Your task to perform on an android device: install app "Lyft - Rideshare, Bikes, Scooters & Transit" Image 0: 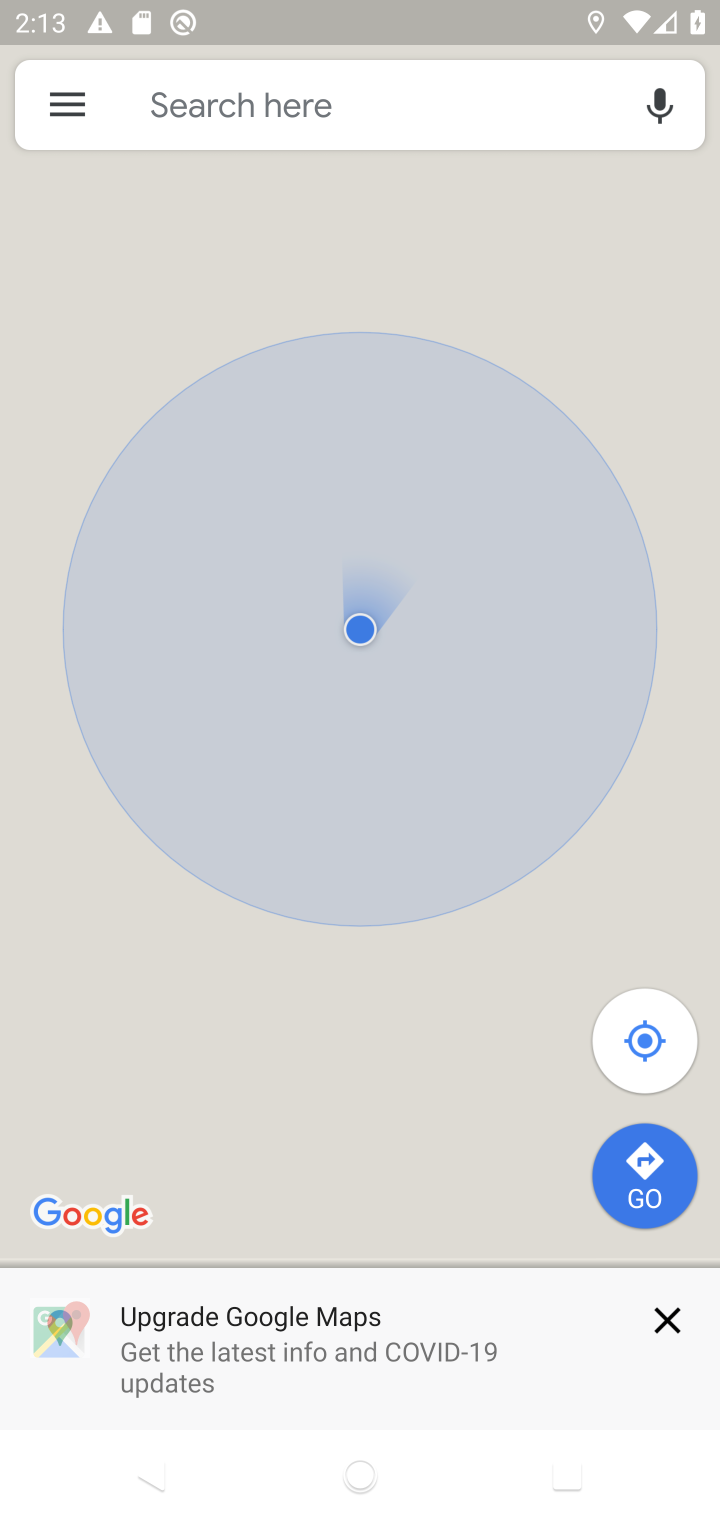
Step 0: press home button
Your task to perform on an android device: install app "Lyft - Rideshare, Bikes, Scooters & Transit" Image 1: 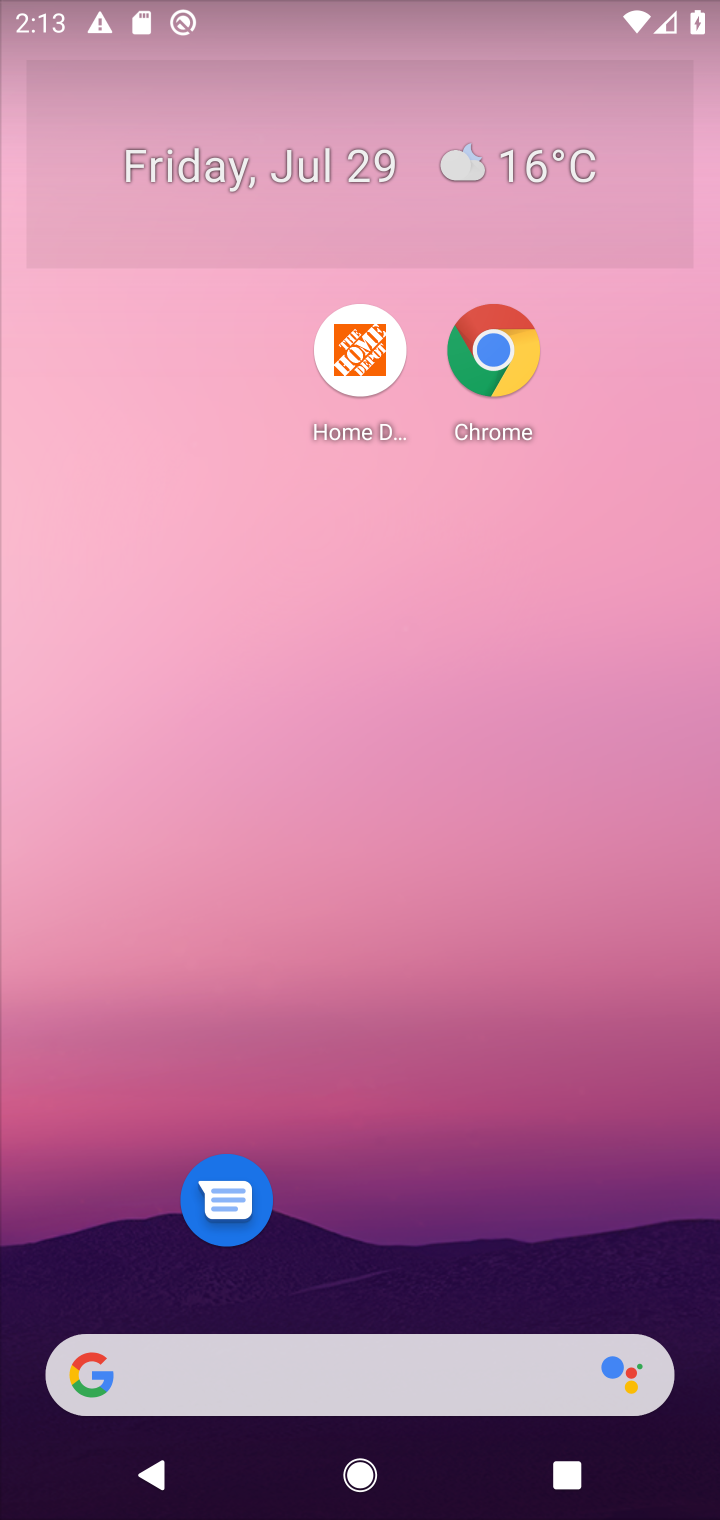
Step 1: drag from (455, 392) to (448, 206)
Your task to perform on an android device: install app "Lyft - Rideshare, Bikes, Scooters & Transit" Image 2: 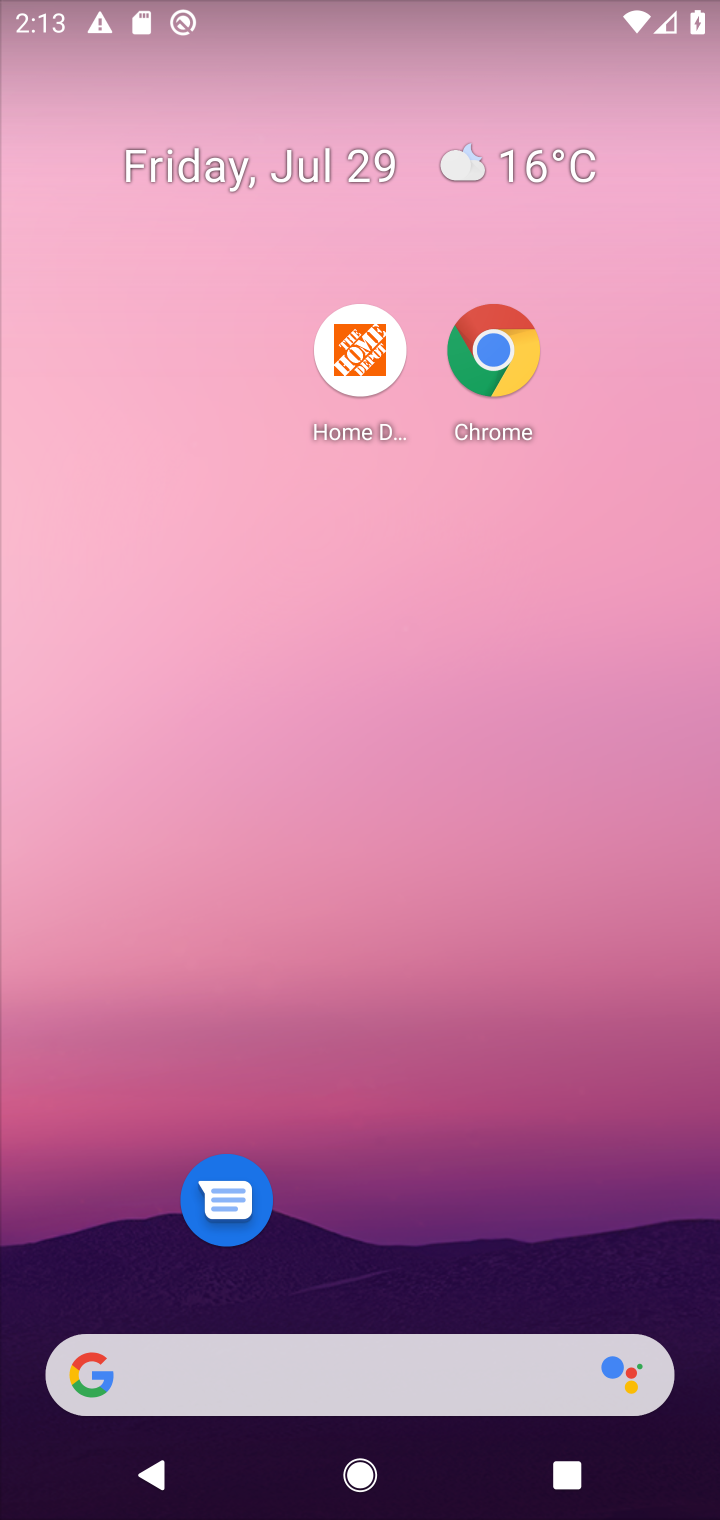
Step 2: drag from (530, 973) to (464, 39)
Your task to perform on an android device: install app "Lyft - Rideshare, Bikes, Scooters & Transit" Image 3: 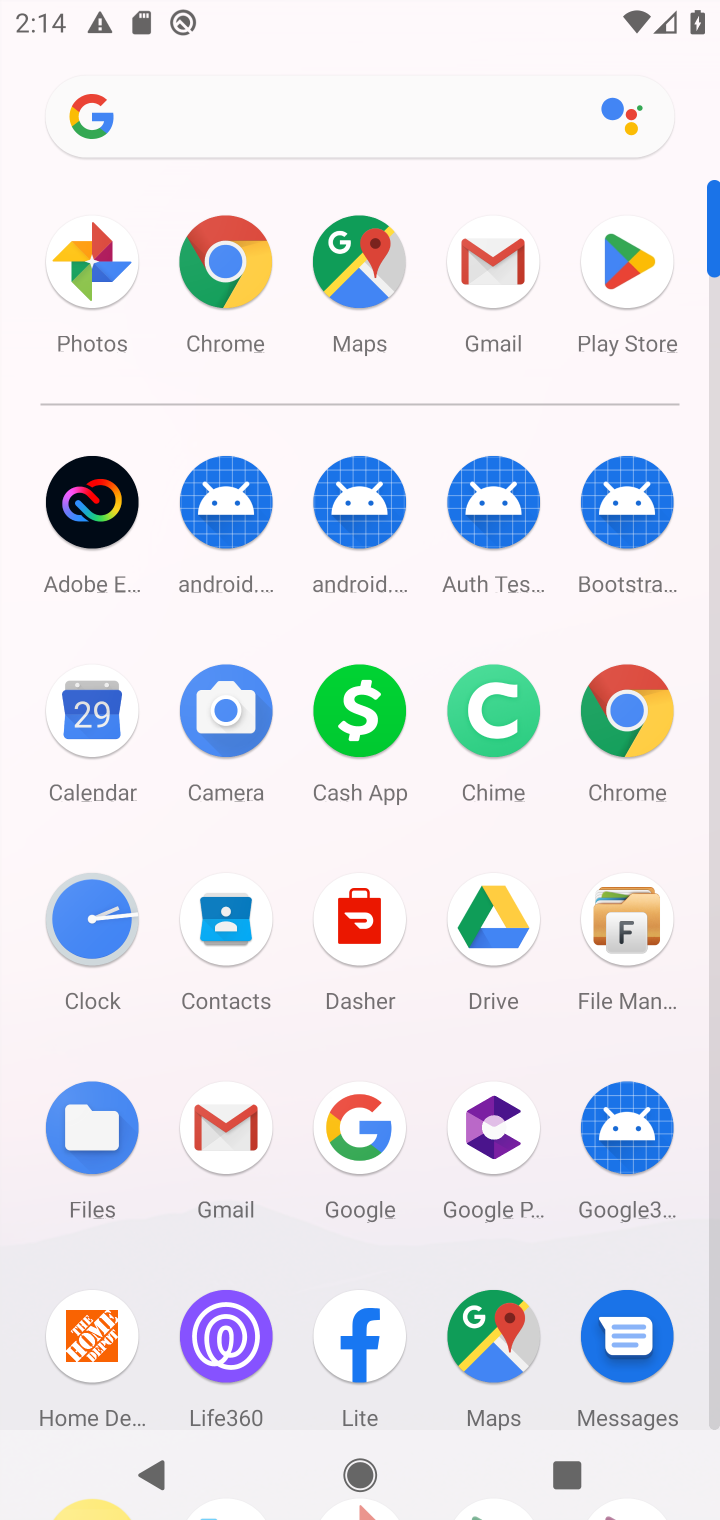
Step 3: click (630, 255)
Your task to perform on an android device: install app "Lyft - Rideshare, Bikes, Scooters & Transit" Image 4: 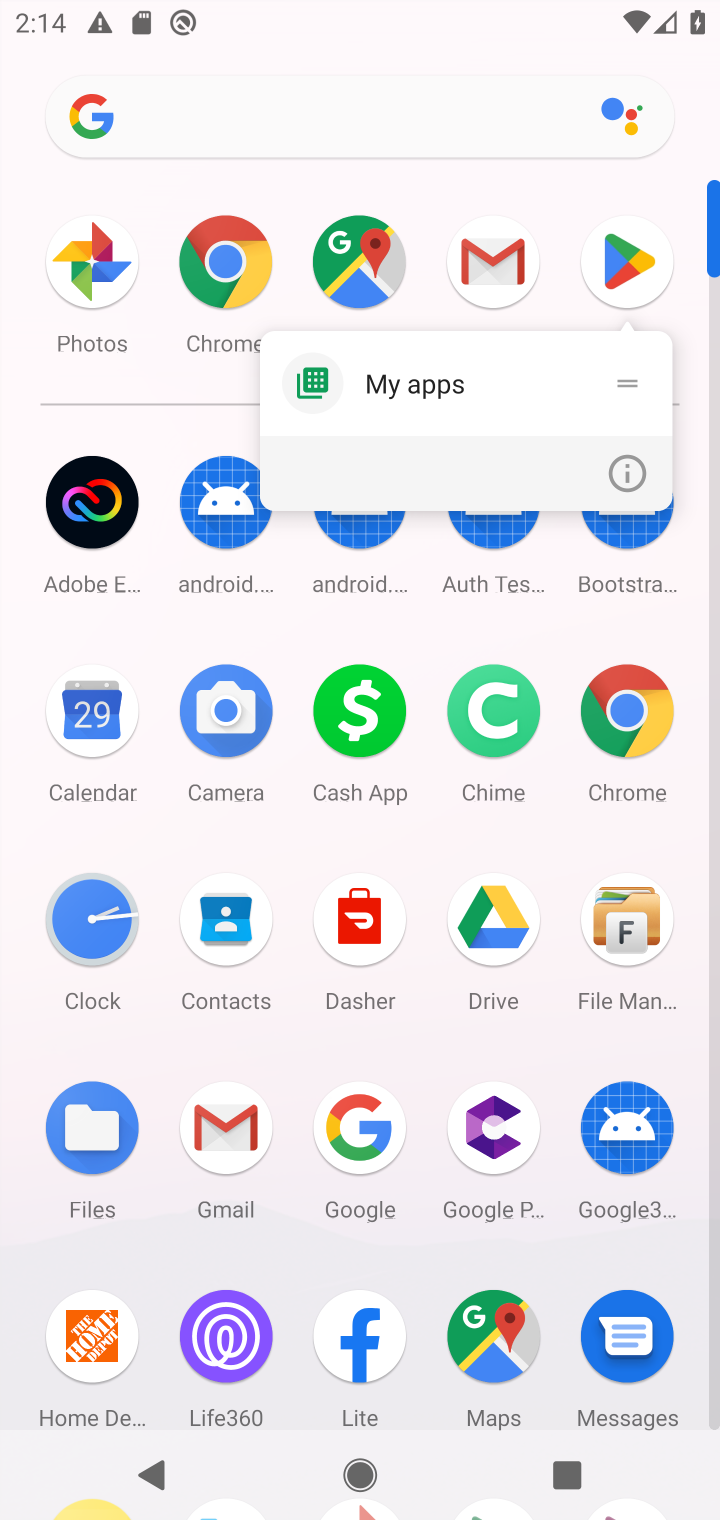
Step 4: click (412, 1229)
Your task to perform on an android device: install app "Lyft - Rideshare, Bikes, Scooters & Transit" Image 5: 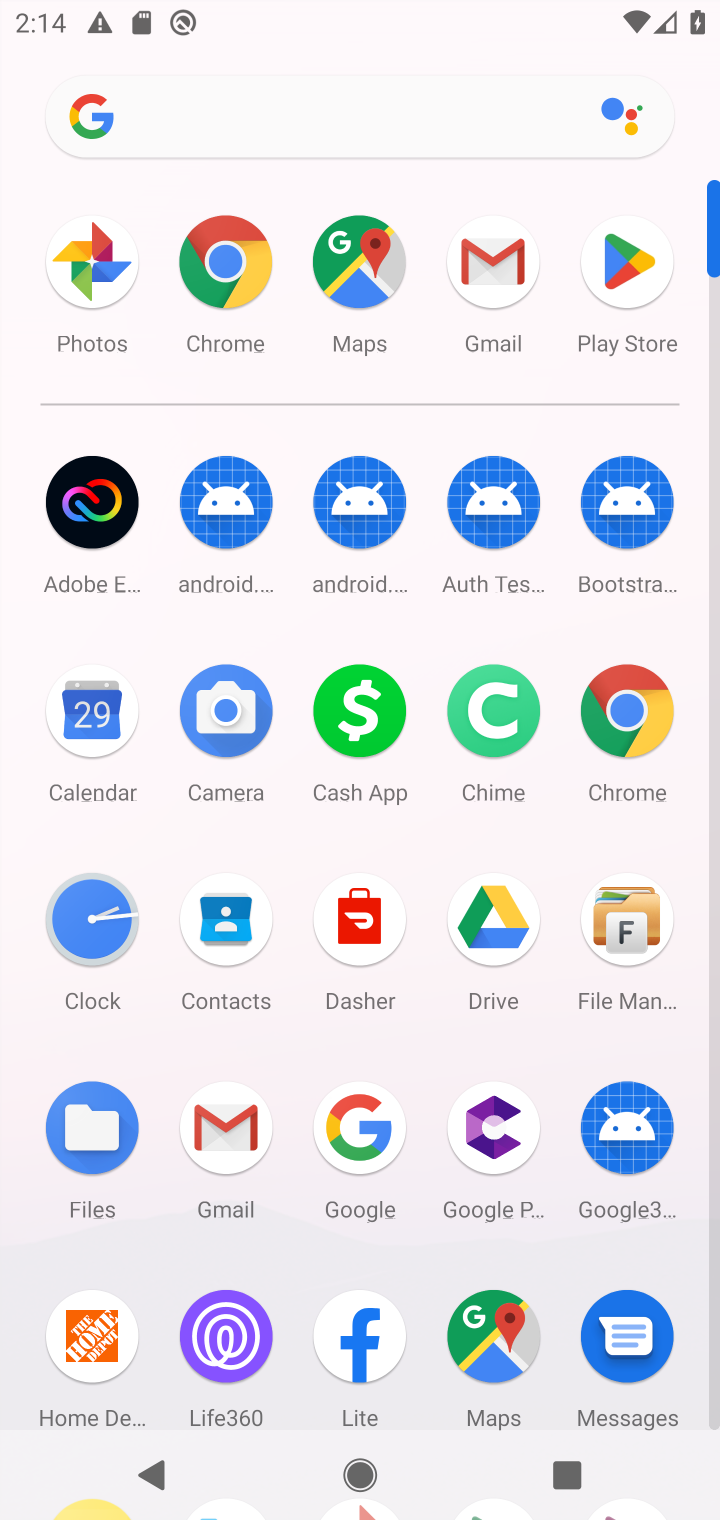
Step 5: drag from (412, 1229) to (439, 347)
Your task to perform on an android device: install app "Lyft - Rideshare, Bikes, Scooters & Transit" Image 6: 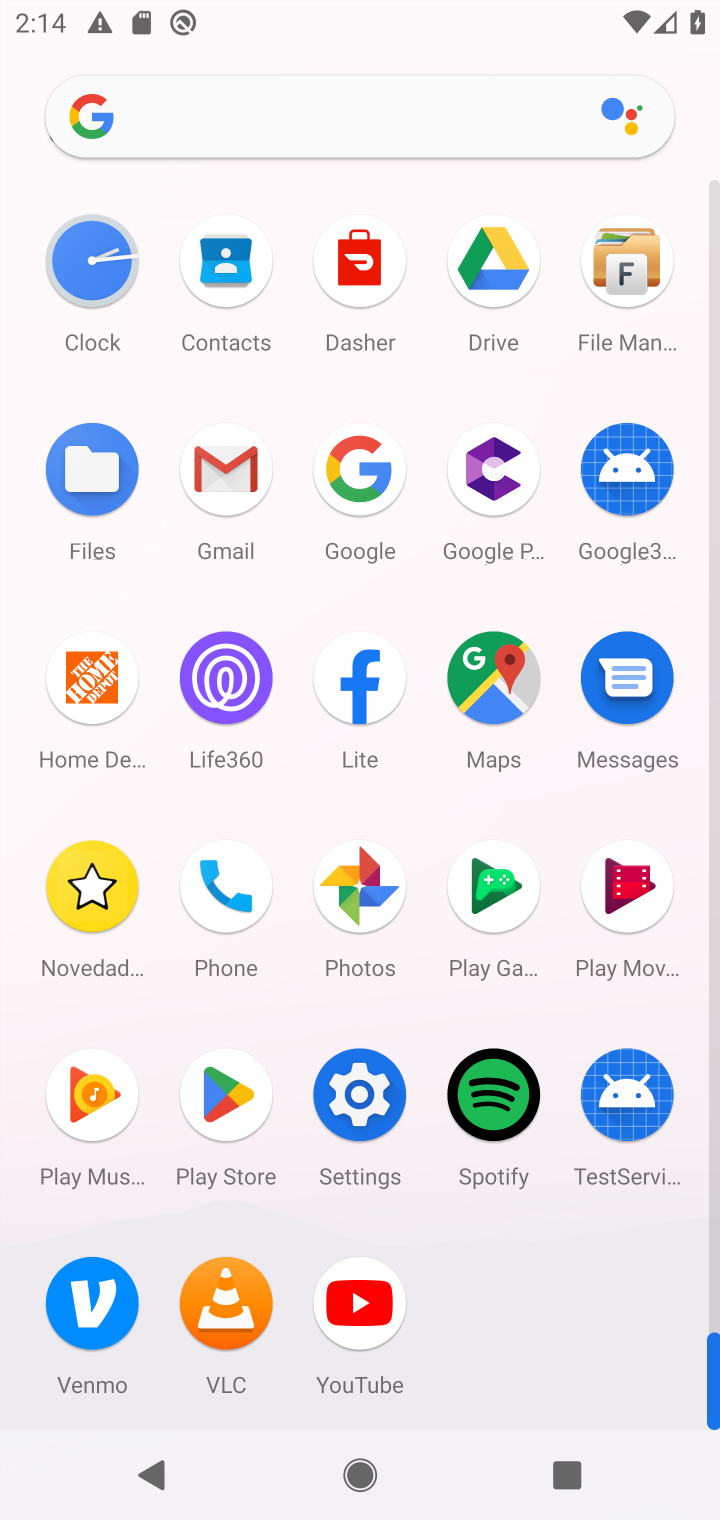
Step 6: click (211, 1108)
Your task to perform on an android device: install app "Lyft - Rideshare, Bikes, Scooters & Transit" Image 7: 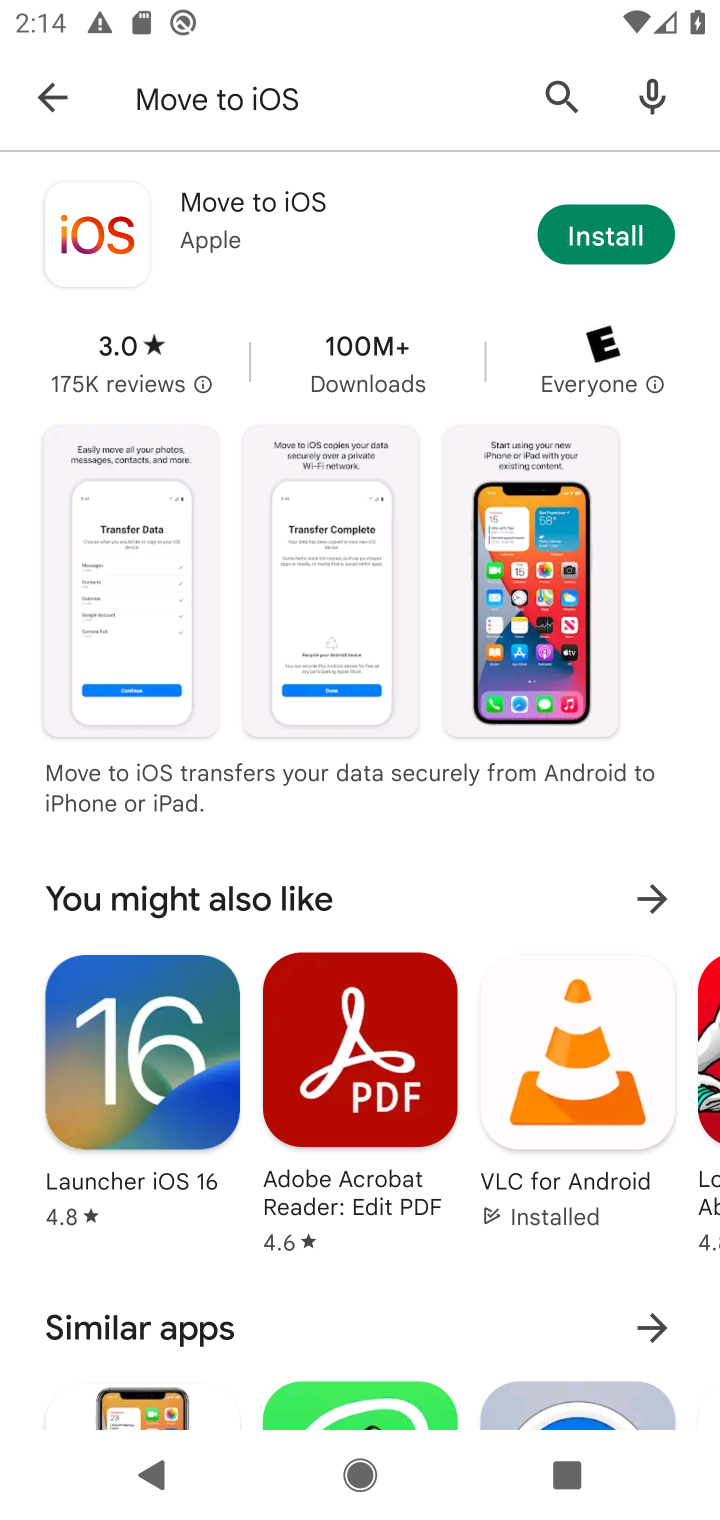
Step 7: click (231, 84)
Your task to perform on an android device: install app "Lyft - Rideshare, Bikes, Scooters & Transit" Image 8: 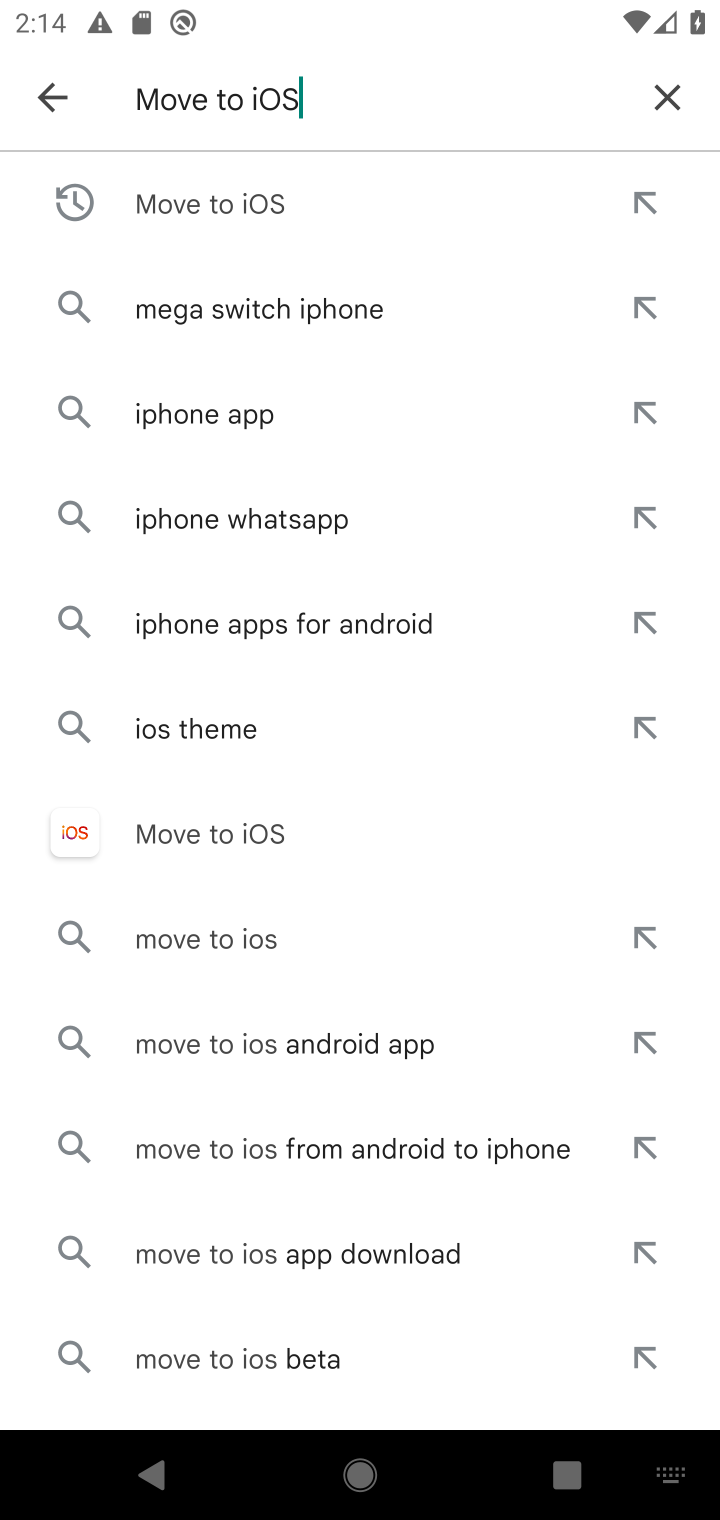
Step 8: click (671, 107)
Your task to perform on an android device: install app "Lyft - Rideshare, Bikes, Scooters & Transit" Image 9: 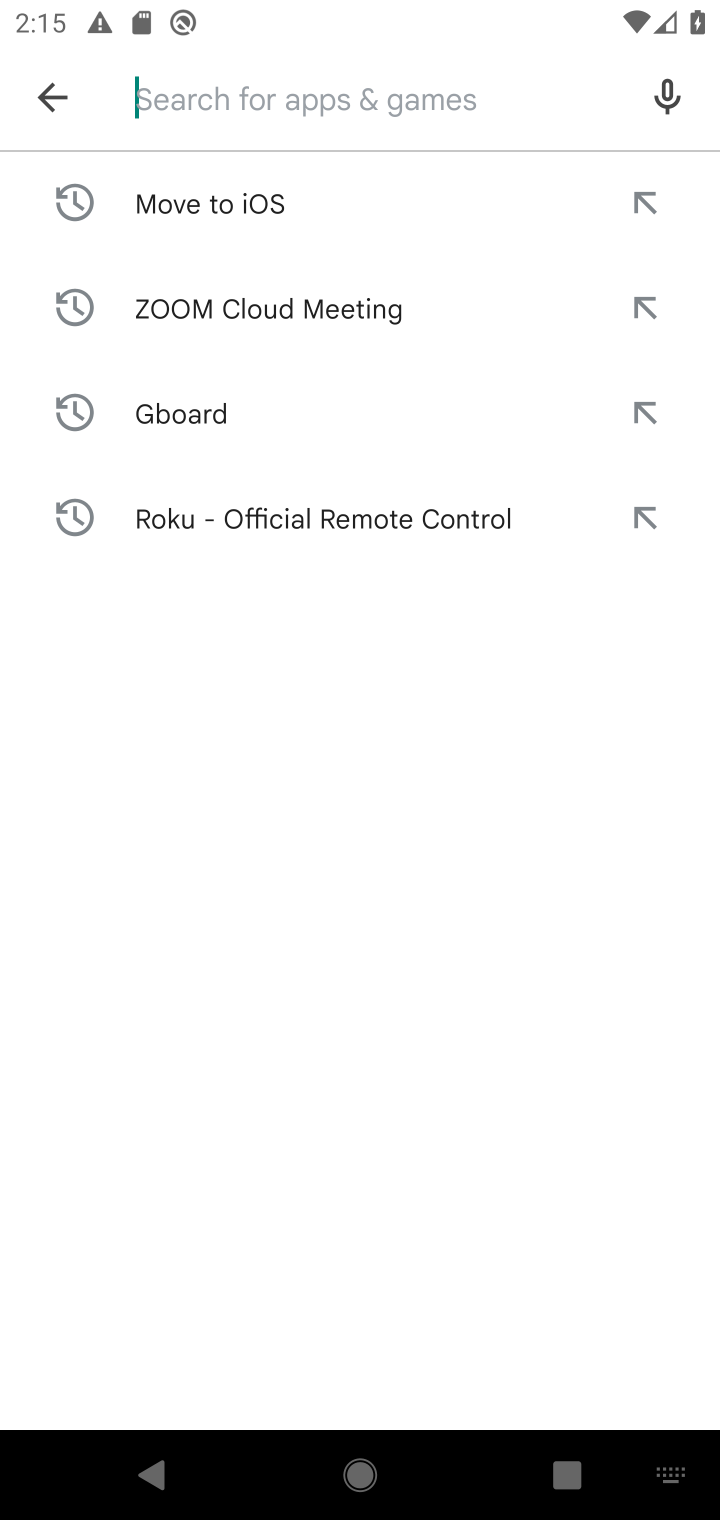
Step 9: type "Lyft - Rideshare, Bikes, Scooters & Transit"
Your task to perform on an android device: install app "Lyft - Rideshare, Bikes, Scooters & Transit" Image 10: 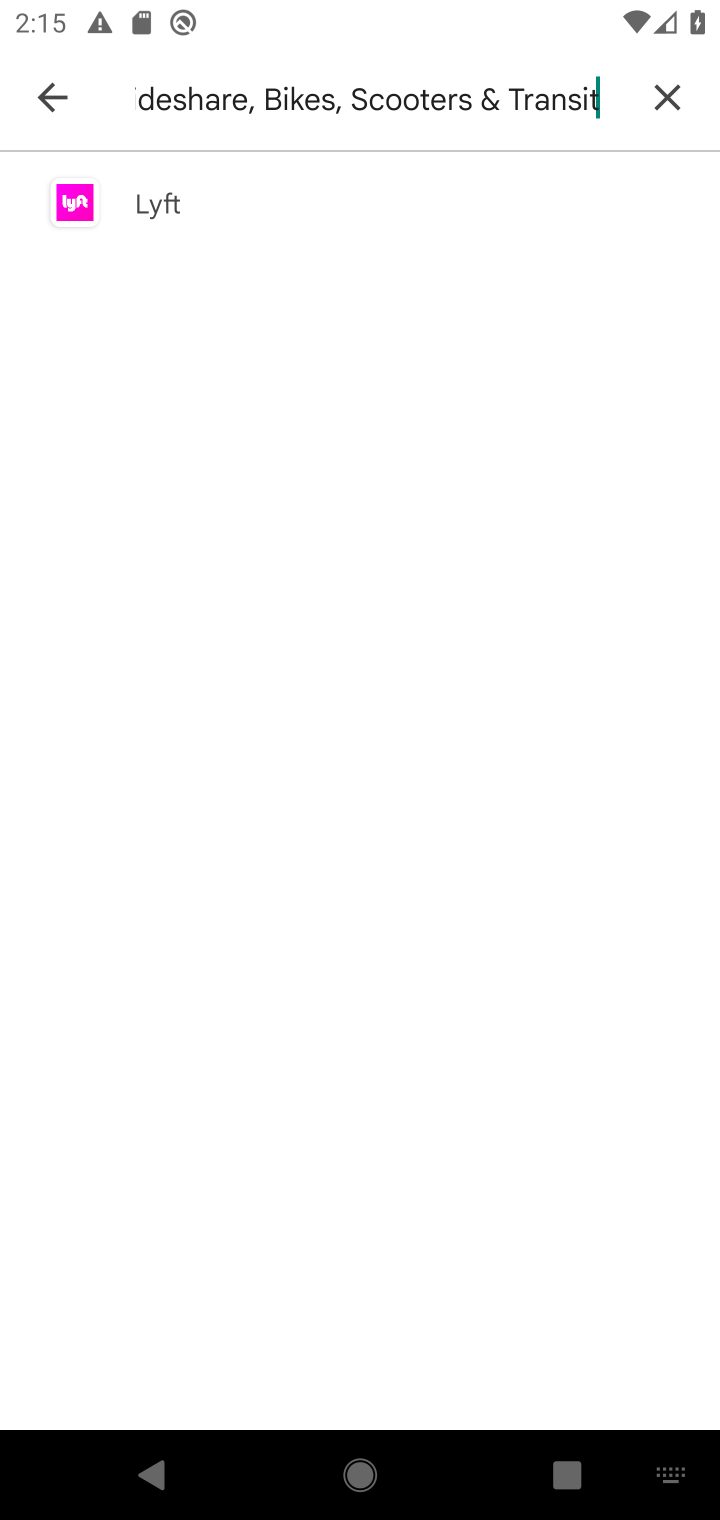
Step 10: press enter
Your task to perform on an android device: install app "Lyft - Rideshare, Bikes, Scooters & Transit" Image 11: 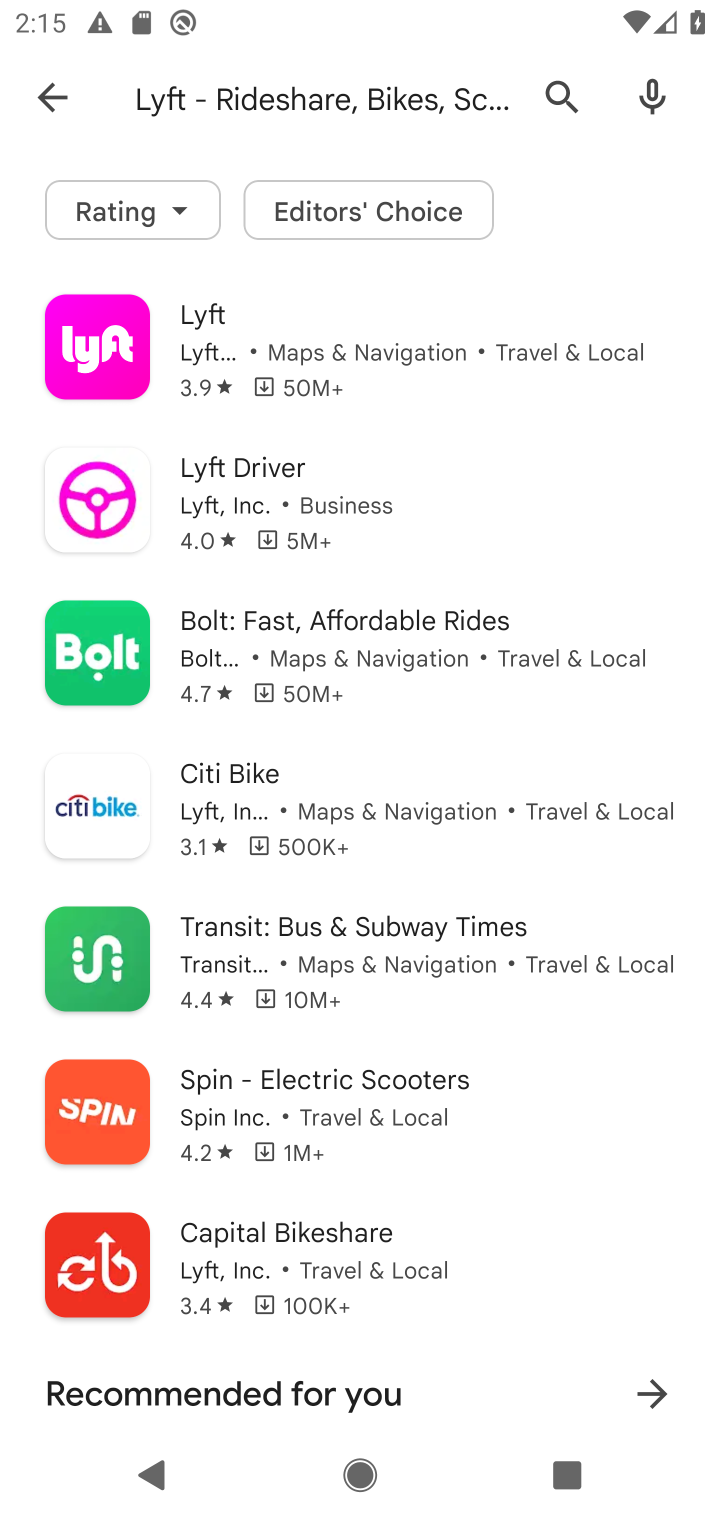
Step 11: click (302, 350)
Your task to perform on an android device: install app "Lyft - Rideshare, Bikes, Scooters & Transit" Image 12: 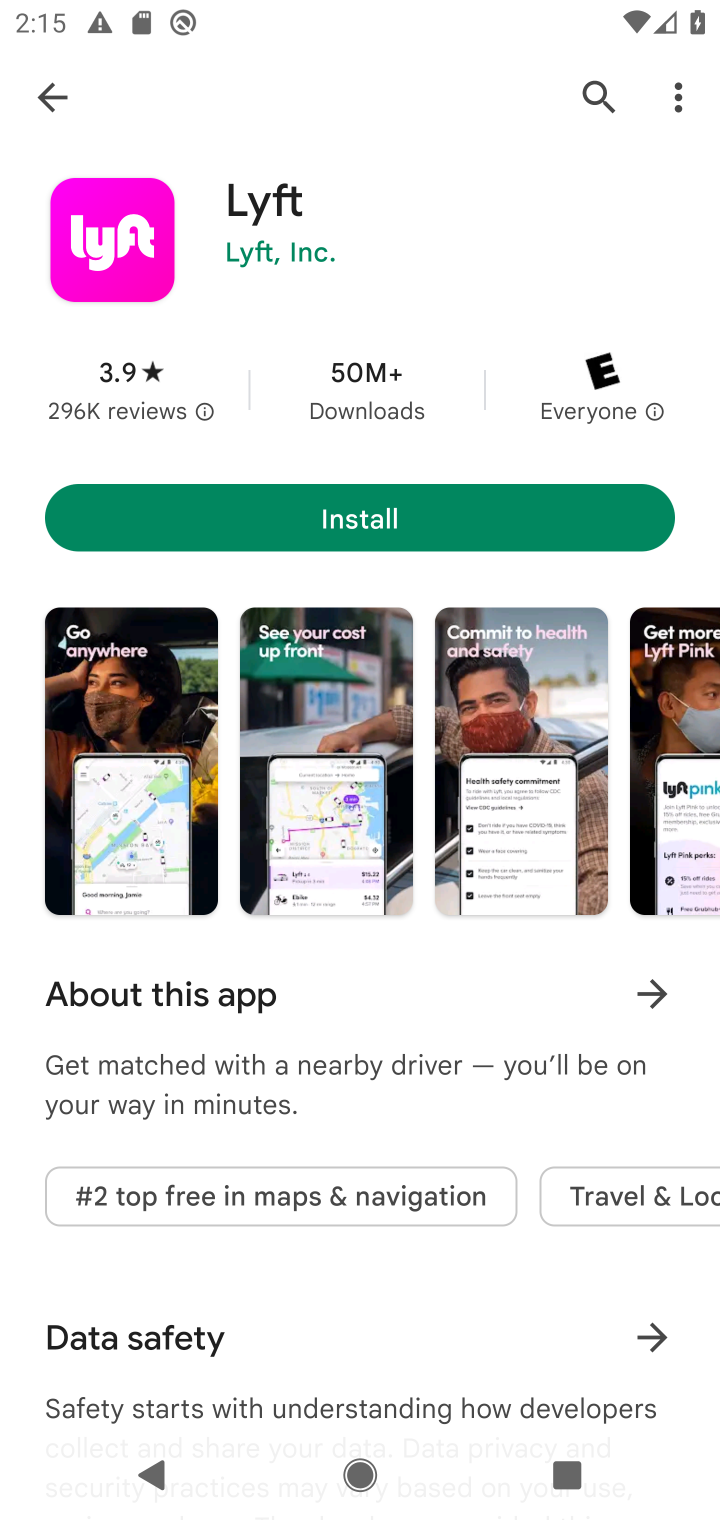
Step 12: click (371, 518)
Your task to perform on an android device: install app "Lyft - Rideshare, Bikes, Scooters & Transit" Image 13: 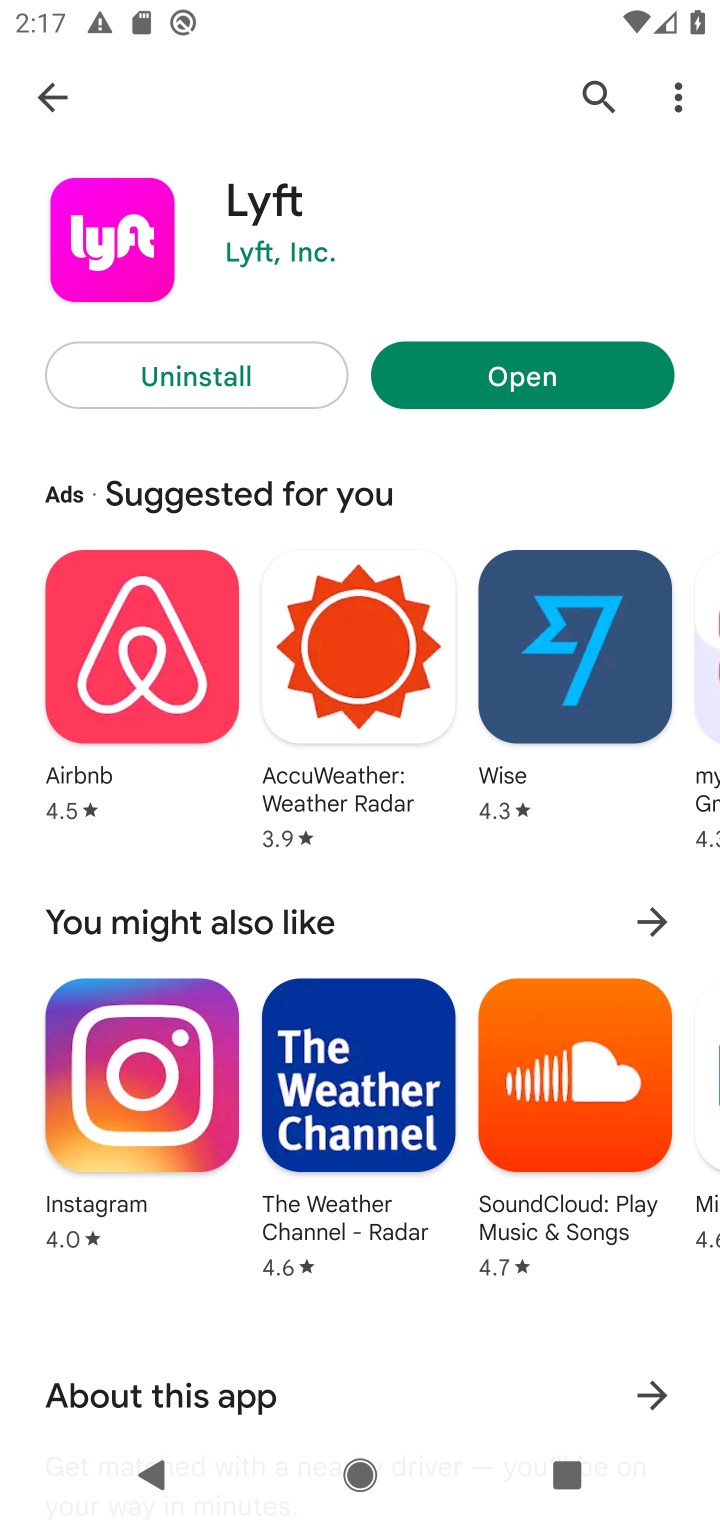
Step 13: task complete